Your task to perform on an android device: Set an alarm for 2pm Image 0: 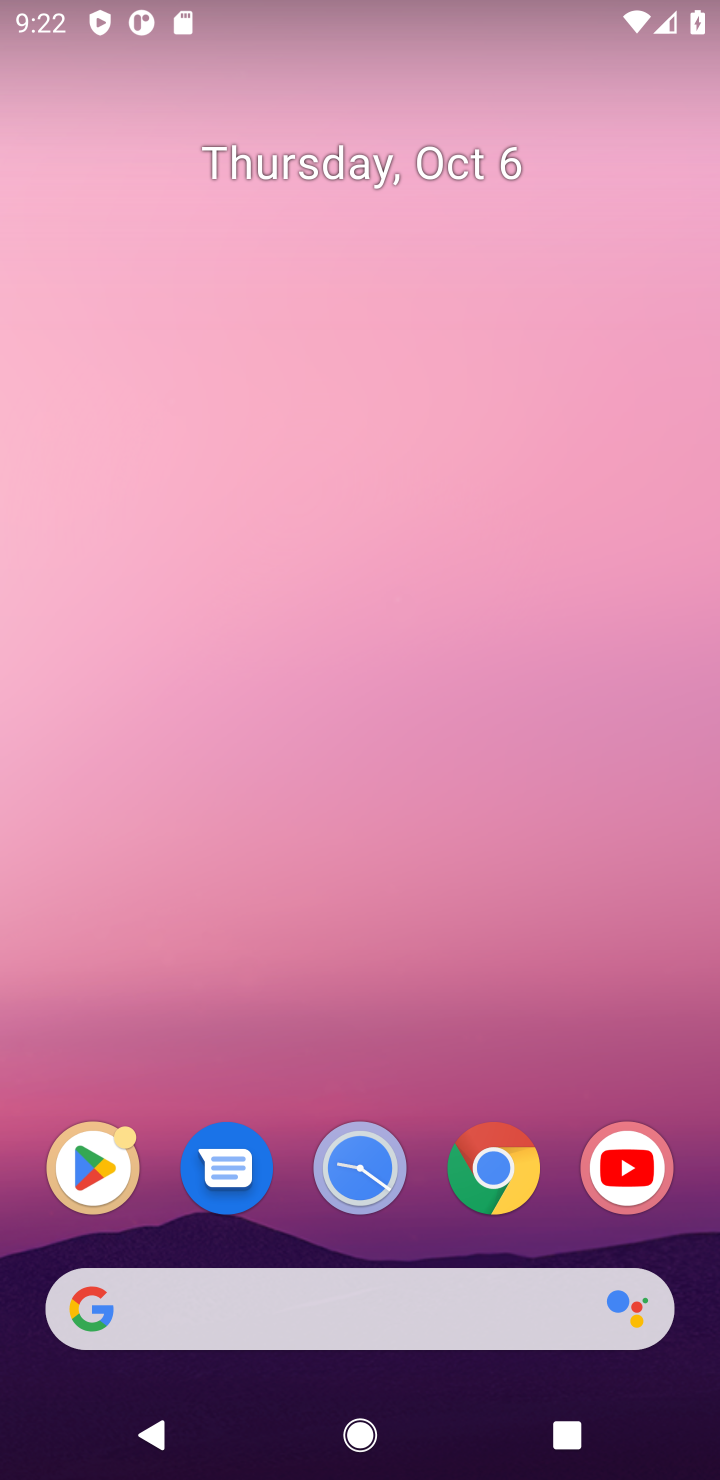
Step 0: click (355, 1163)
Your task to perform on an android device: Set an alarm for 2pm Image 1: 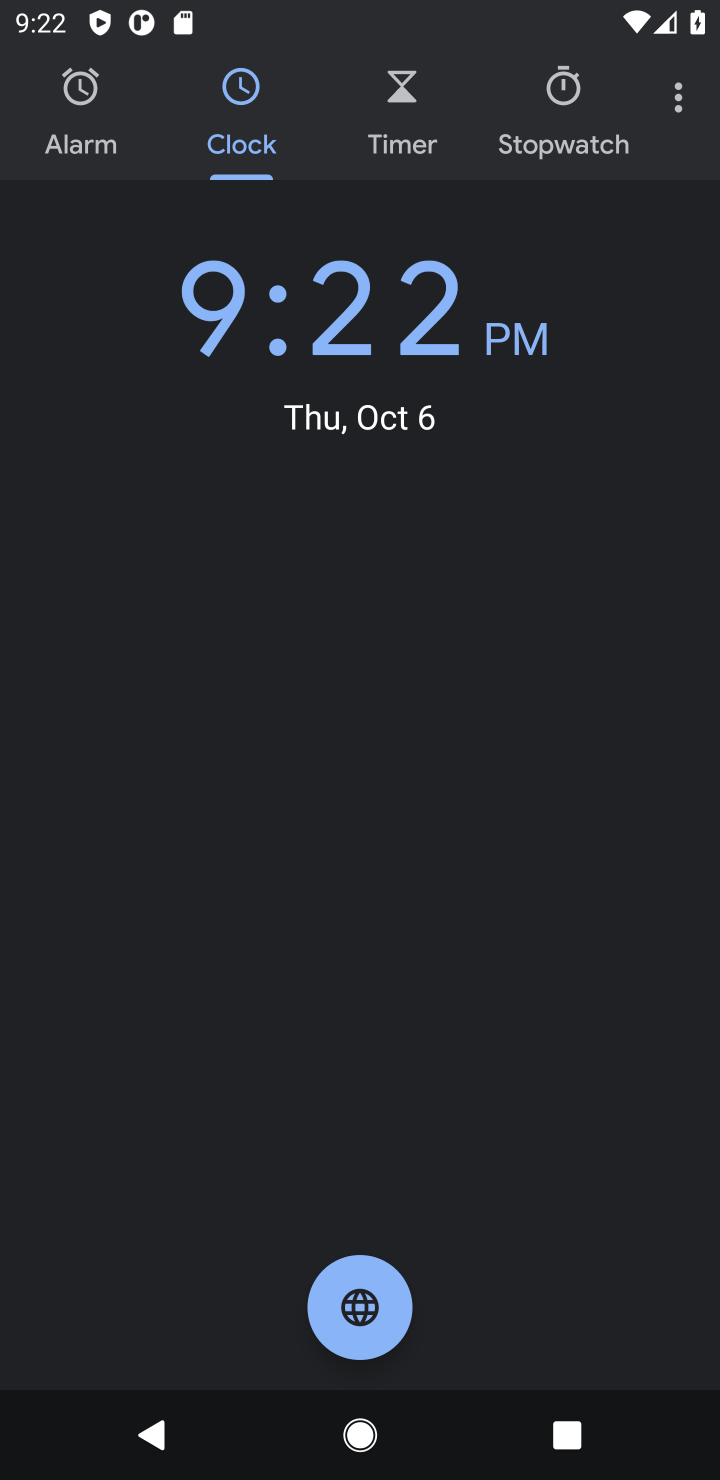
Step 1: click (71, 97)
Your task to perform on an android device: Set an alarm for 2pm Image 2: 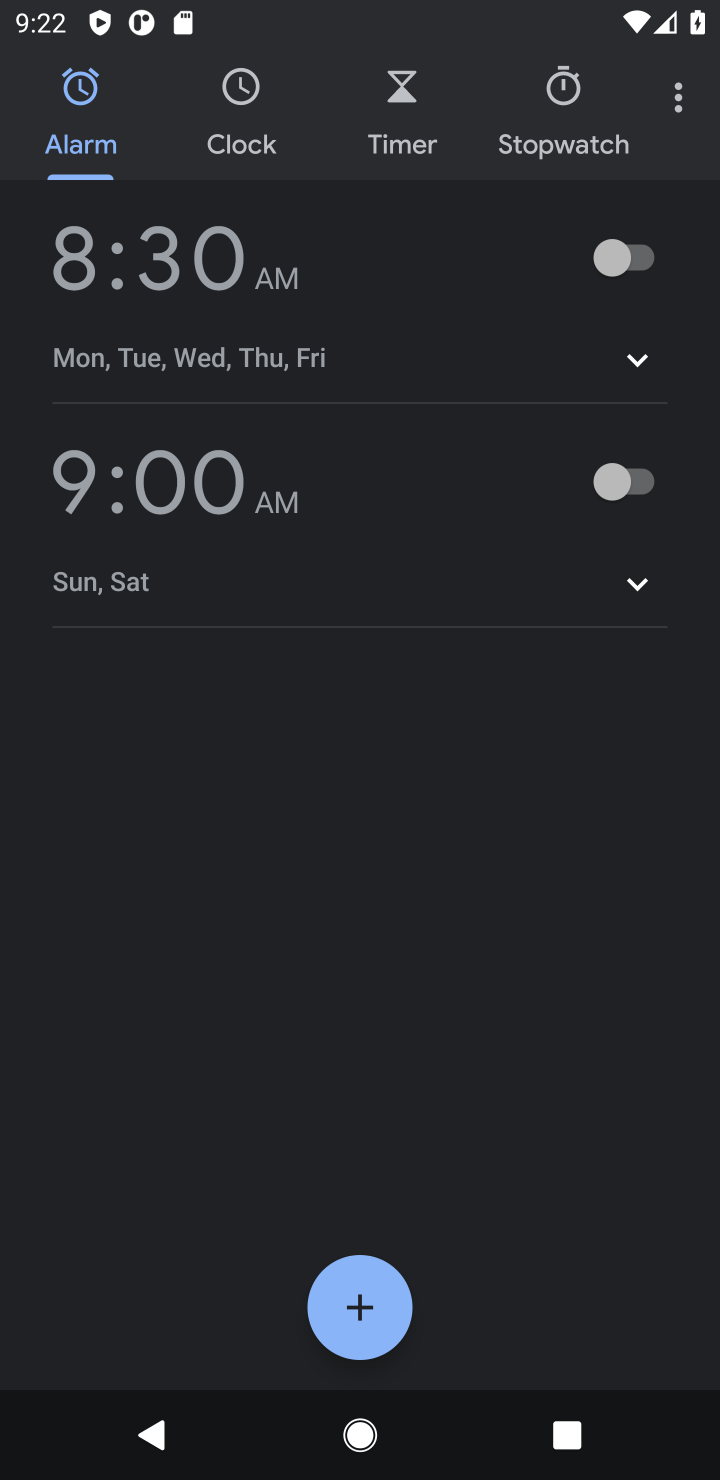
Step 2: click (347, 1304)
Your task to perform on an android device: Set an alarm for 2pm Image 3: 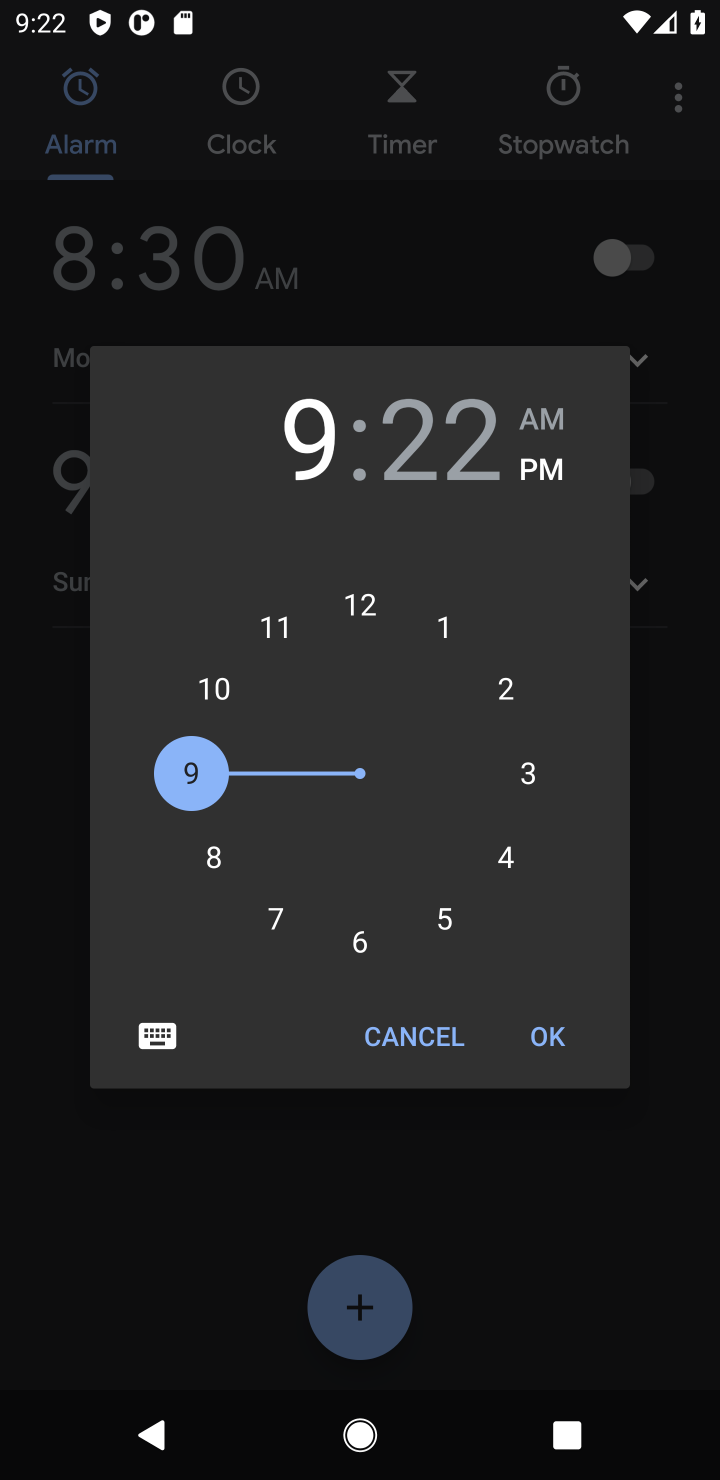
Step 3: click (502, 702)
Your task to perform on an android device: Set an alarm for 2pm Image 4: 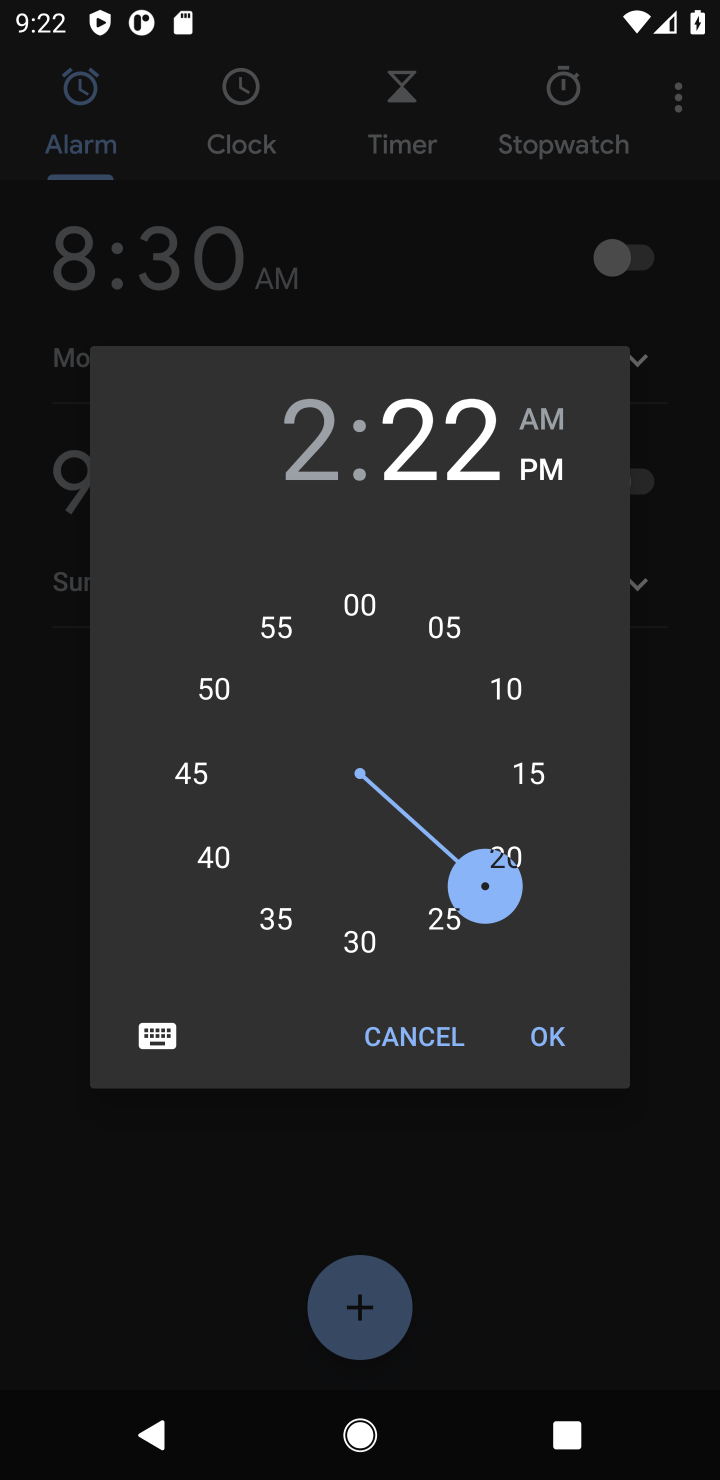
Step 4: click (371, 611)
Your task to perform on an android device: Set an alarm for 2pm Image 5: 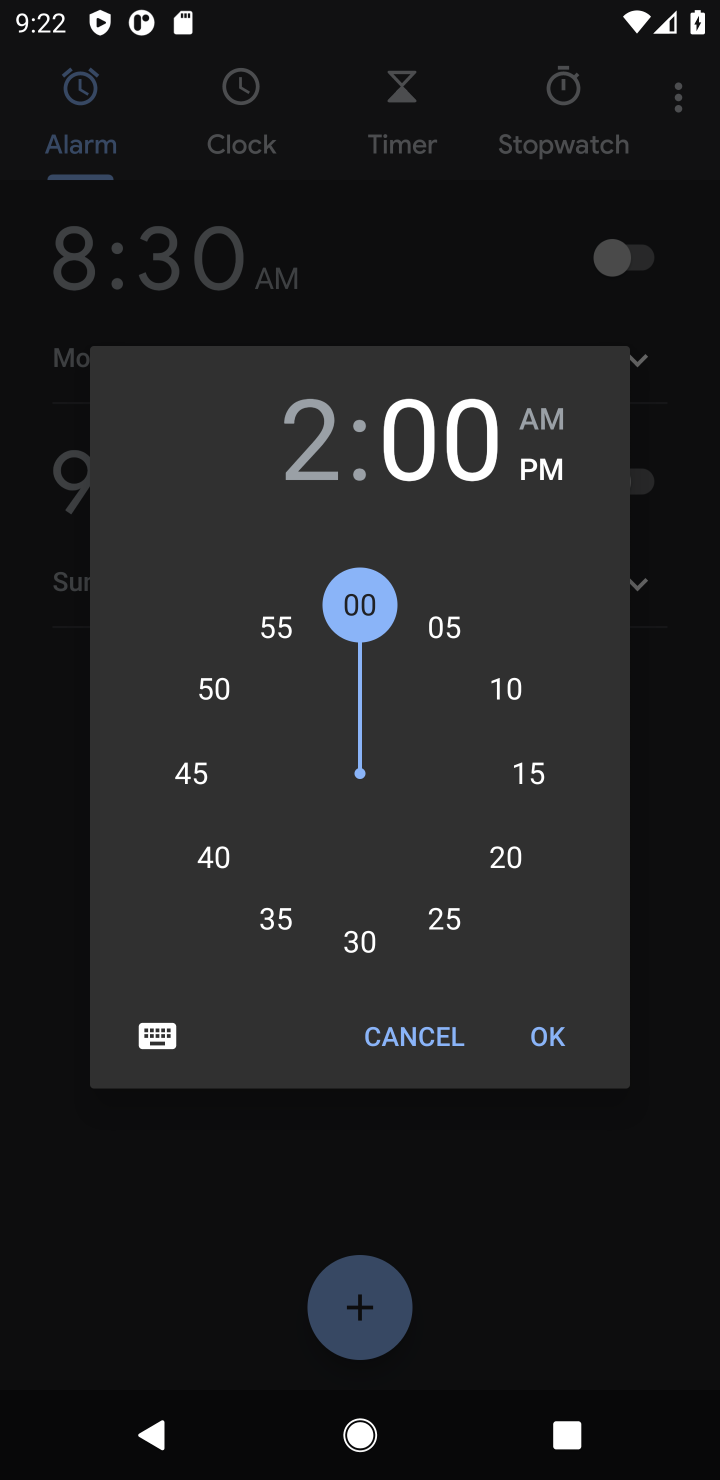
Step 5: click (540, 1041)
Your task to perform on an android device: Set an alarm for 2pm Image 6: 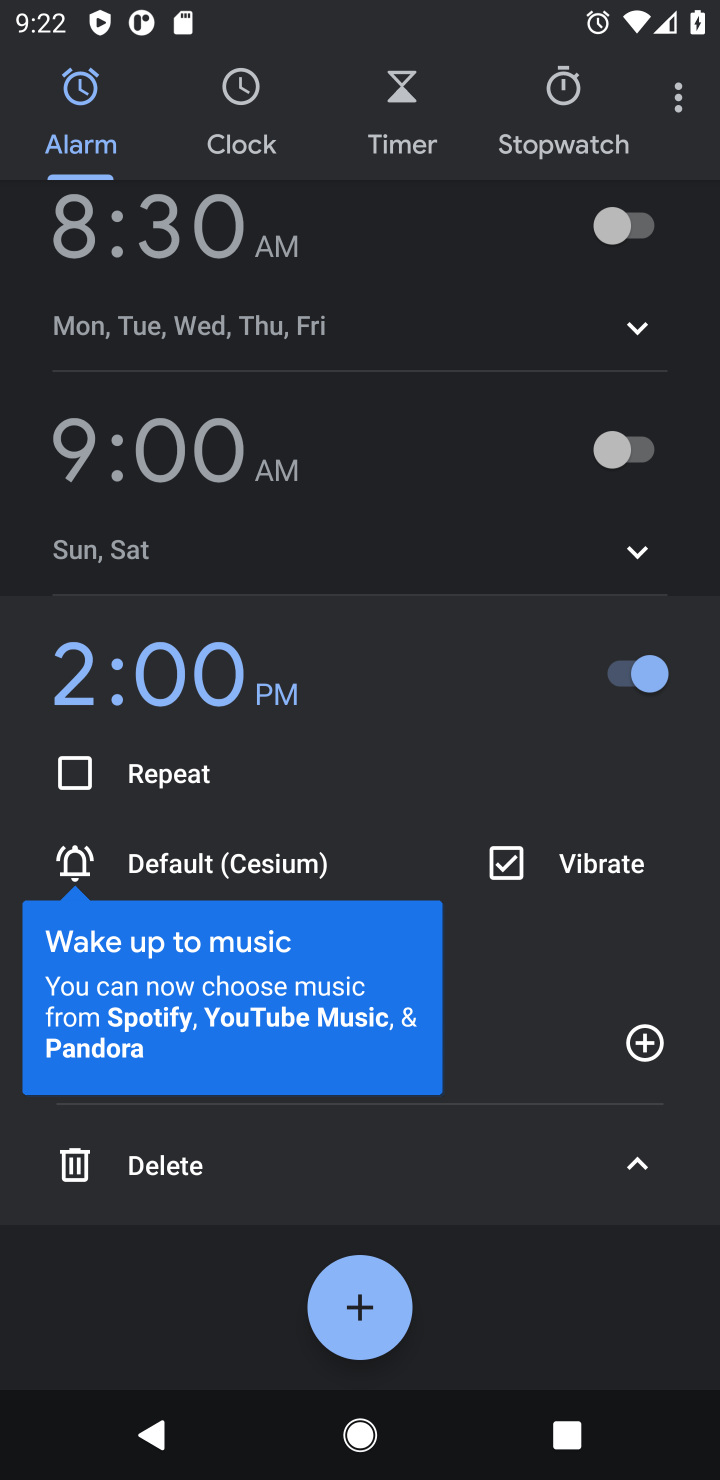
Step 6: task complete